Your task to perform on an android device: check out phone information Image 0: 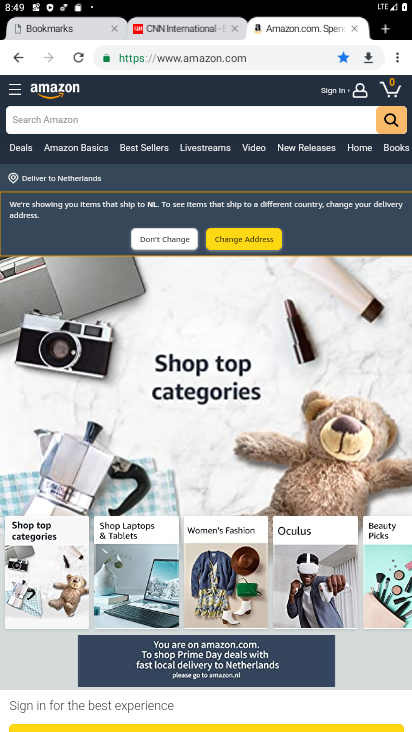
Step 0: press home button
Your task to perform on an android device: check out phone information Image 1: 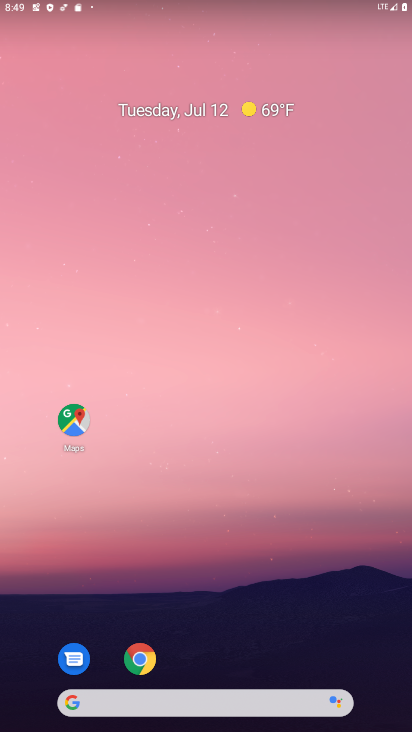
Step 1: drag from (217, 633) to (246, 151)
Your task to perform on an android device: check out phone information Image 2: 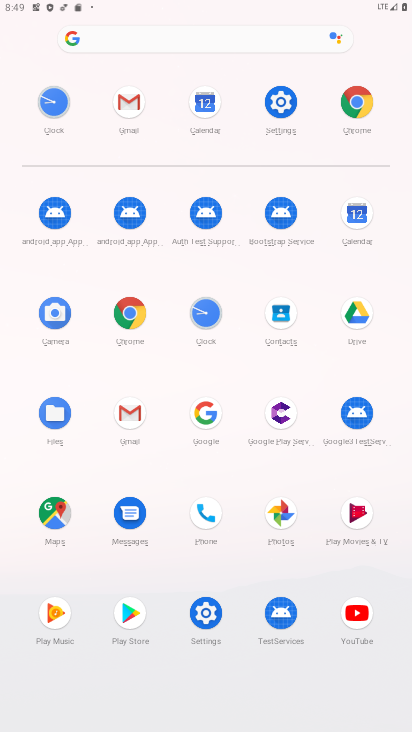
Step 2: click (289, 106)
Your task to perform on an android device: check out phone information Image 3: 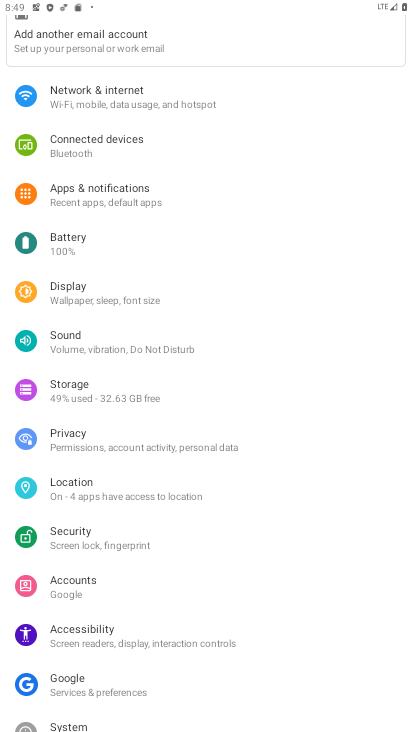
Step 3: drag from (146, 691) to (173, 280)
Your task to perform on an android device: check out phone information Image 4: 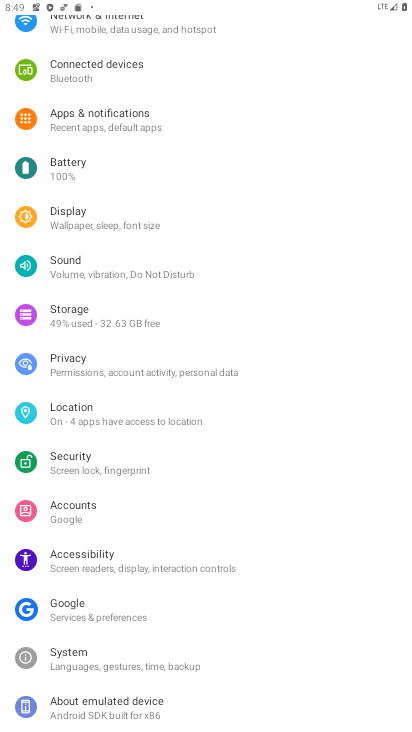
Step 4: click (121, 703)
Your task to perform on an android device: check out phone information Image 5: 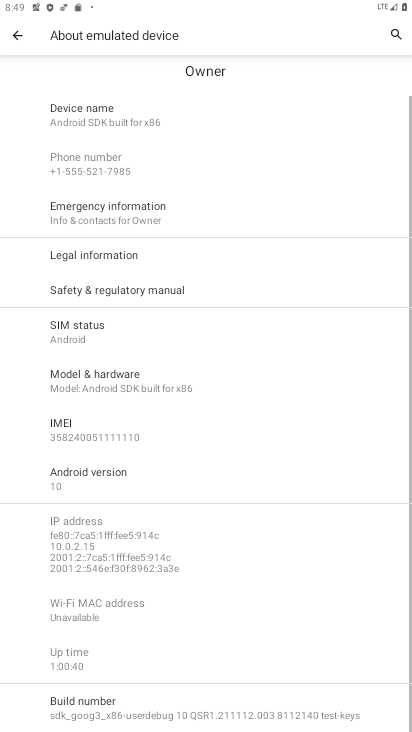
Step 5: task complete